Your task to perform on an android device: Open location settings Image 0: 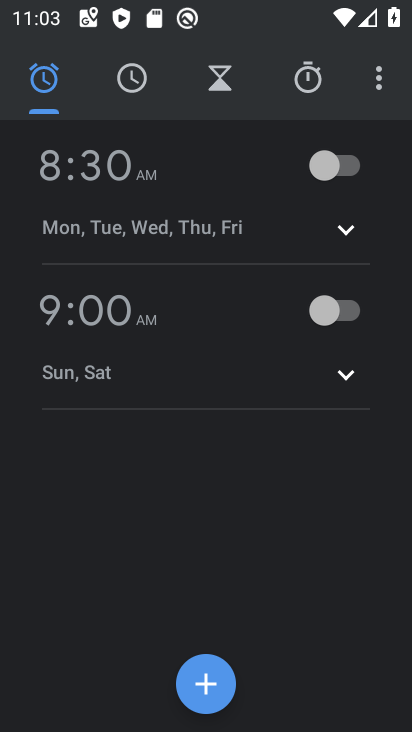
Step 0: press home button
Your task to perform on an android device: Open location settings Image 1: 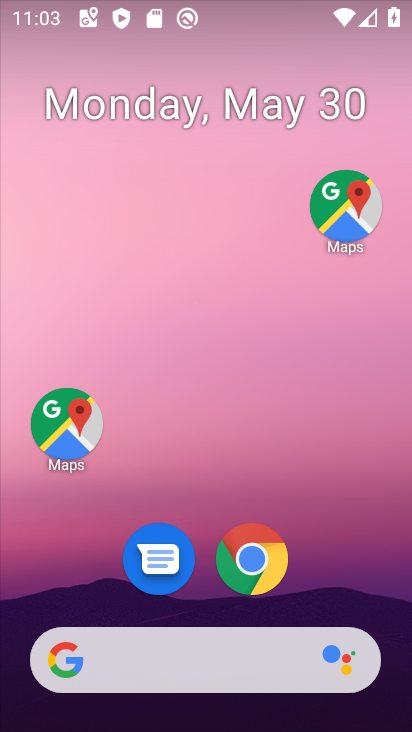
Step 1: drag from (369, 541) to (239, 20)
Your task to perform on an android device: Open location settings Image 2: 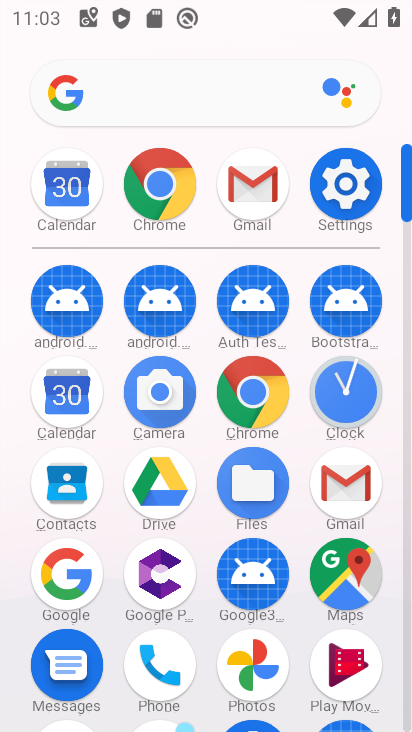
Step 2: click (342, 190)
Your task to perform on an android device: Open location settings Image 3: 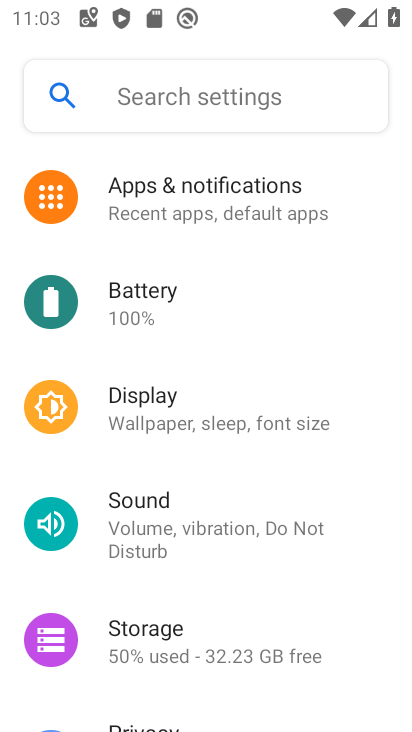
Step 3: drag from (248, 509) to (296, 140)
Your task to perform on an android device: Open location settings Image 4: 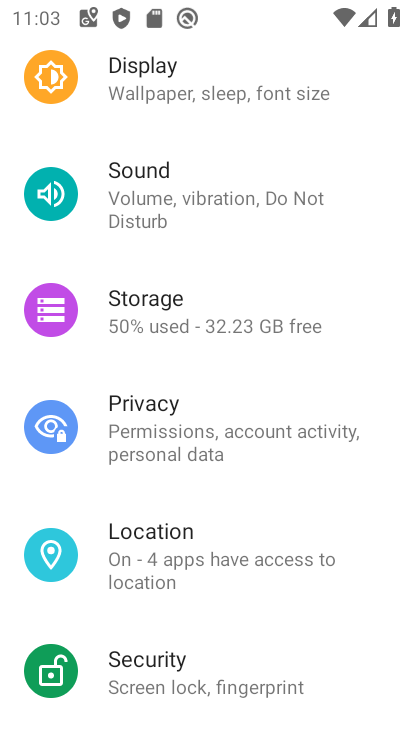
Step 4: click (148, 552)
Your task to perform on an android device: Open location settings Image 5: 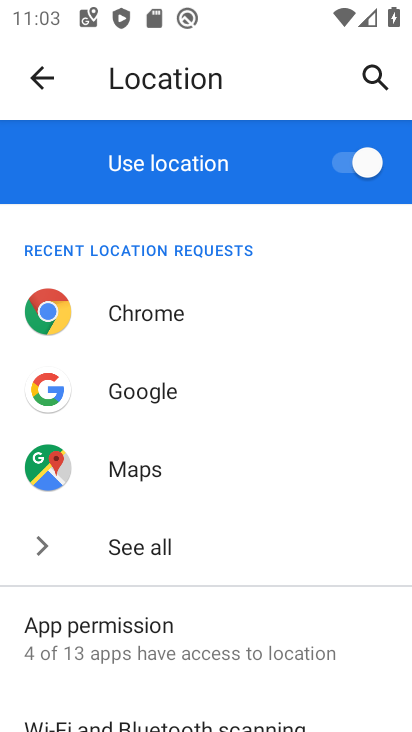
Step 5: task complete